Your task to perform on an android device: open app "HBO Max: Stream TV & Movies" Image 0: 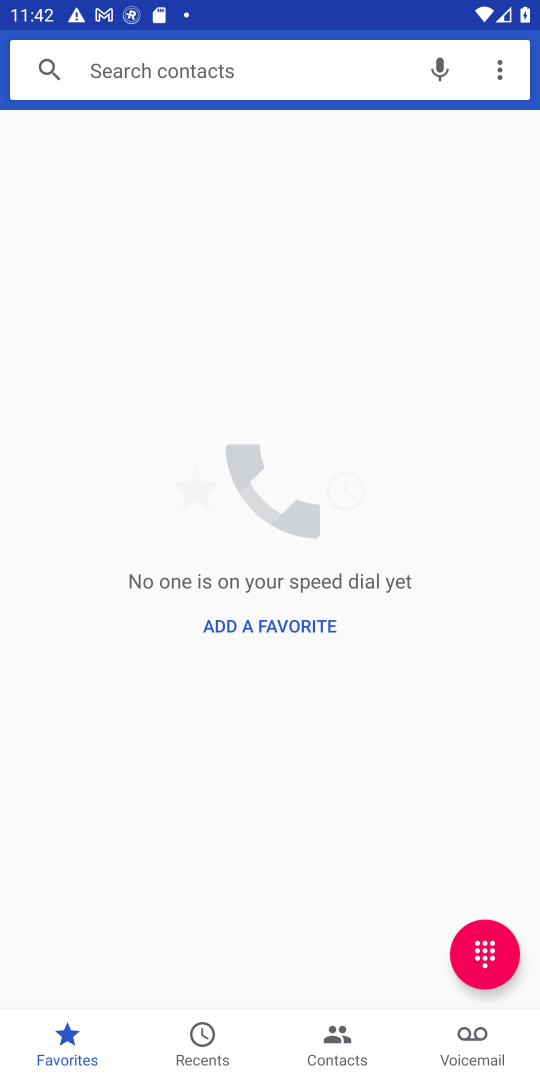
Step 0: press home button
Your task to perform on an android device: open app "HBO Max: Stream TV & Movies" Image 1: 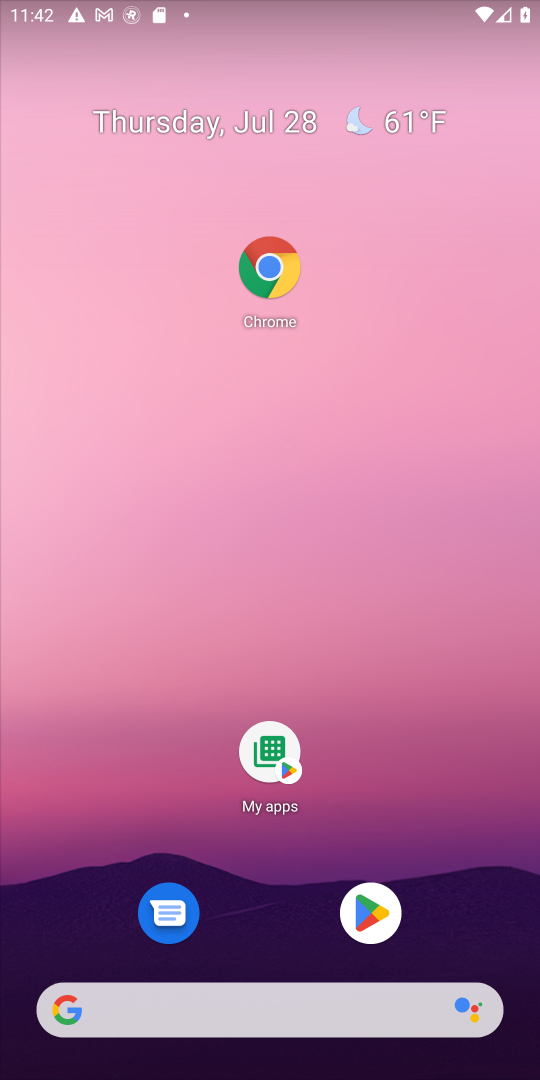
Step 1: click (385, 905)
Your task to perform on an android device: open app "HBO Max: Stream TV & Movies" Image 2: 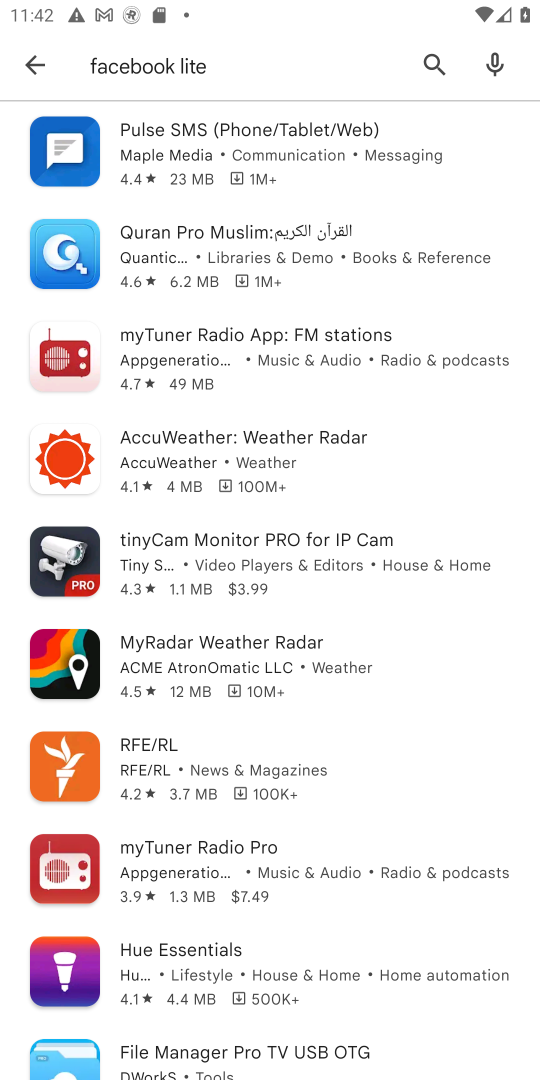
Step 2: click (431, 55)
Your task to perform on an android device: open app "HBO Max: Stream TV & Movies" Image 3: 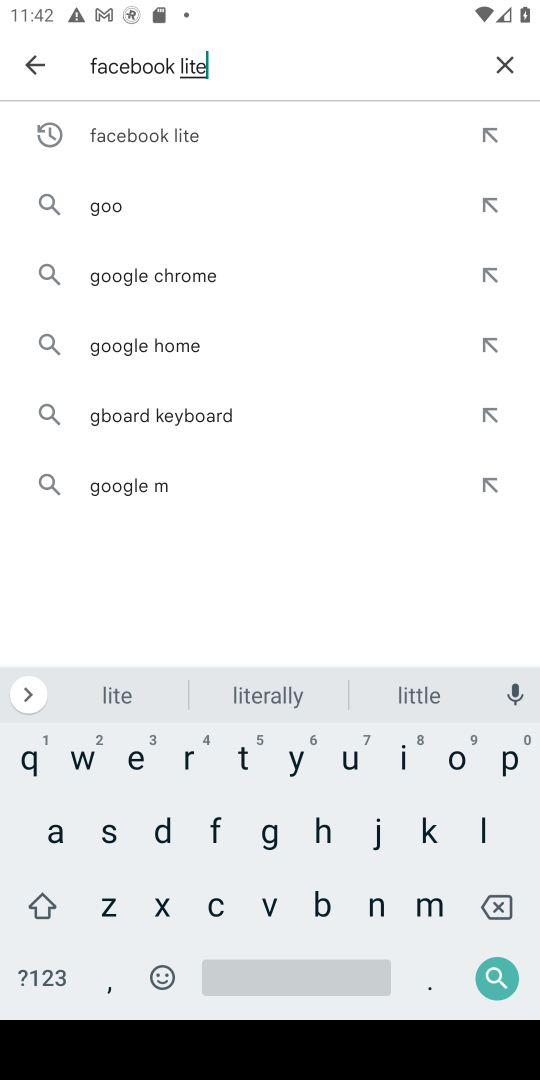
Step 3: click (496, 63)
Your task to perform on an android device: open app "HBO Max: Stream TV & Movies" Image 4: 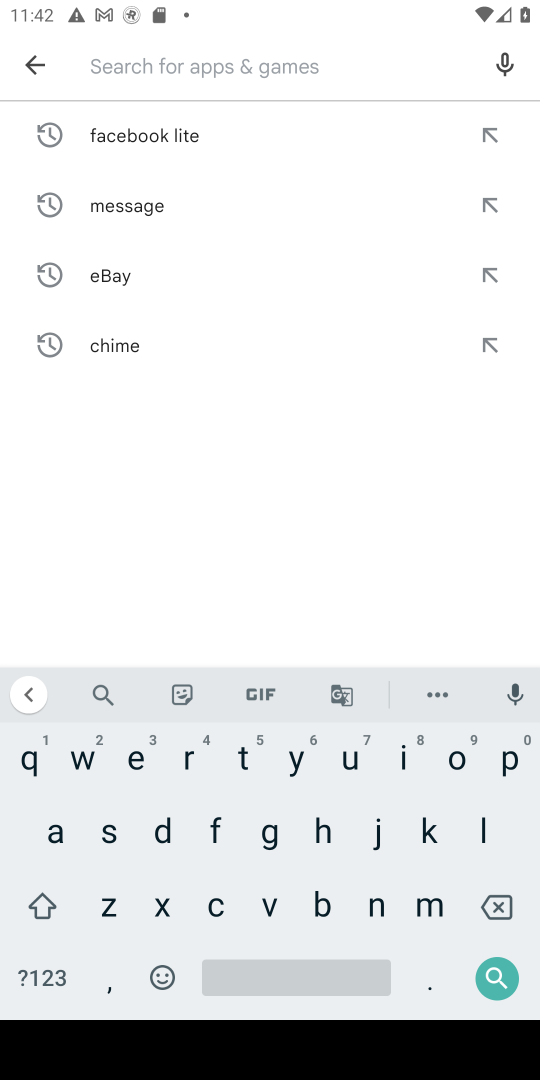
Step 4: click (326, 827)
Your task to perform on an android device: open app "HBO Max: Stream TV & Movies" Image 5: 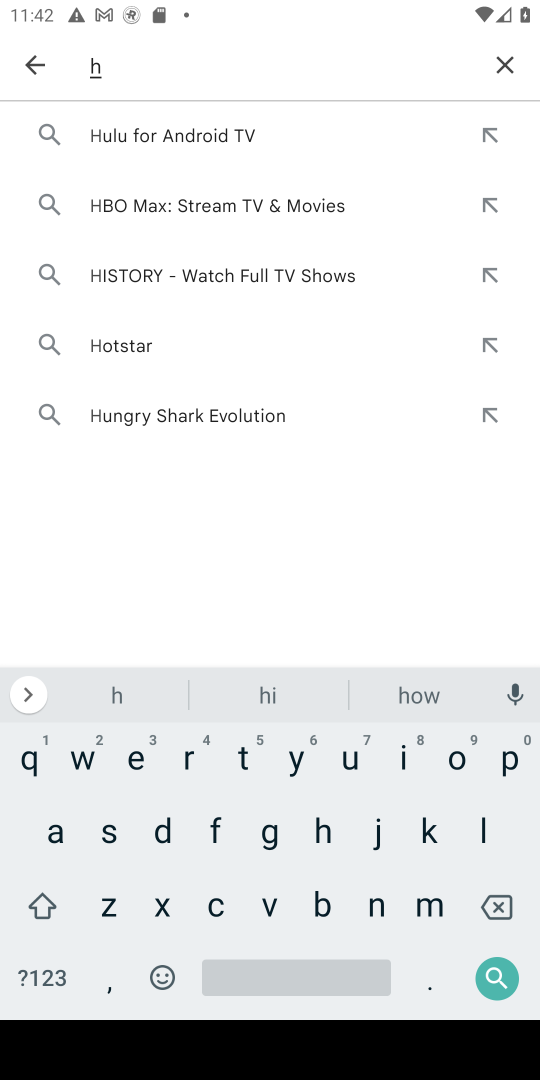
Step 5: click (321, 907)
Your task to perform on an android device: open app "HBO Max: Stream TV & Movies" Image 6: 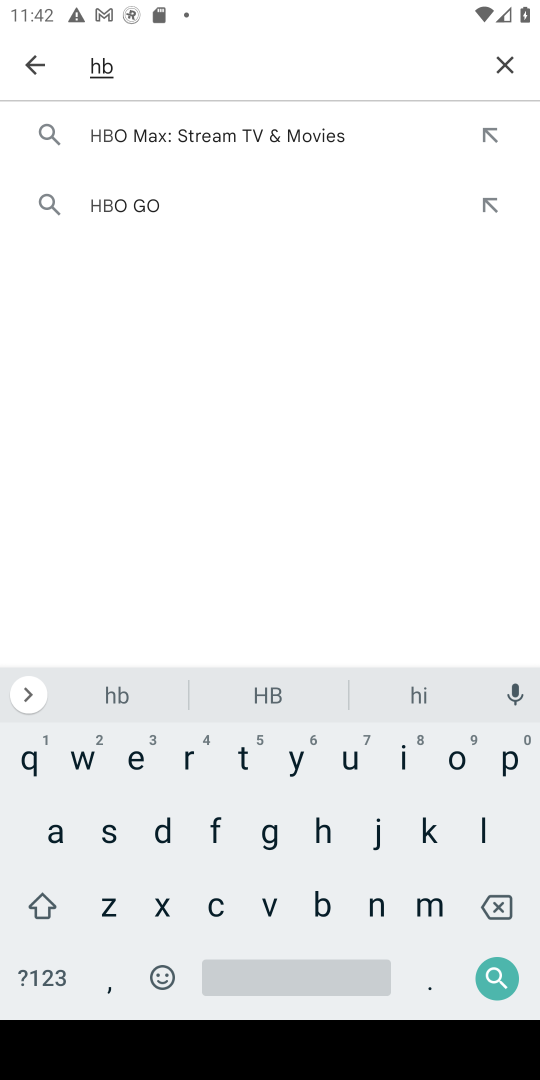
Step 6: click (457, 760)
Your task to perform on an android device: open app "HBO Max: Stream TV & Movies" Image 7: 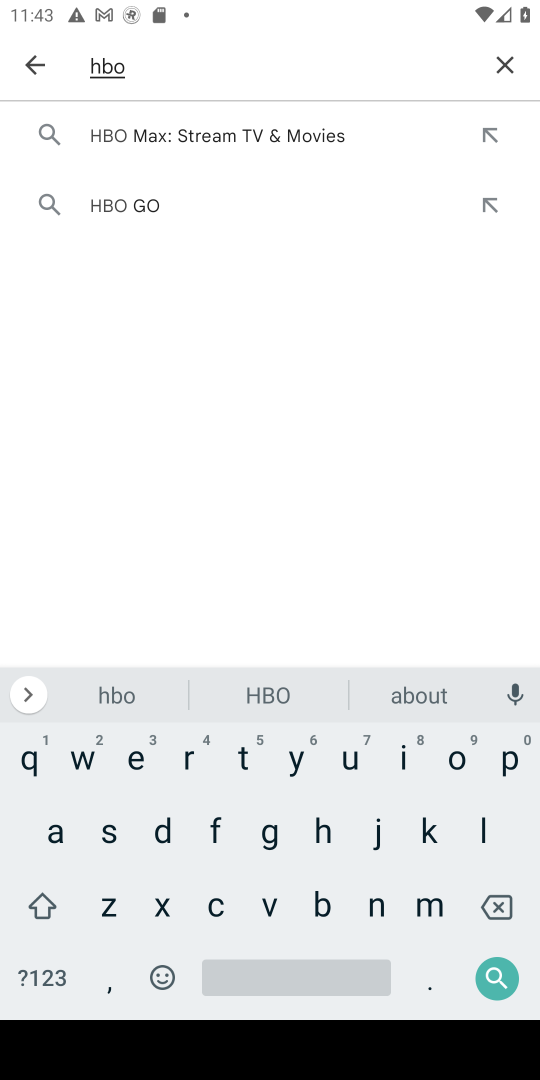
Step 7: click (304, 123)
Your task to perform on an android device: open app "HBO Max: Stream TV & Movies" Image 8: 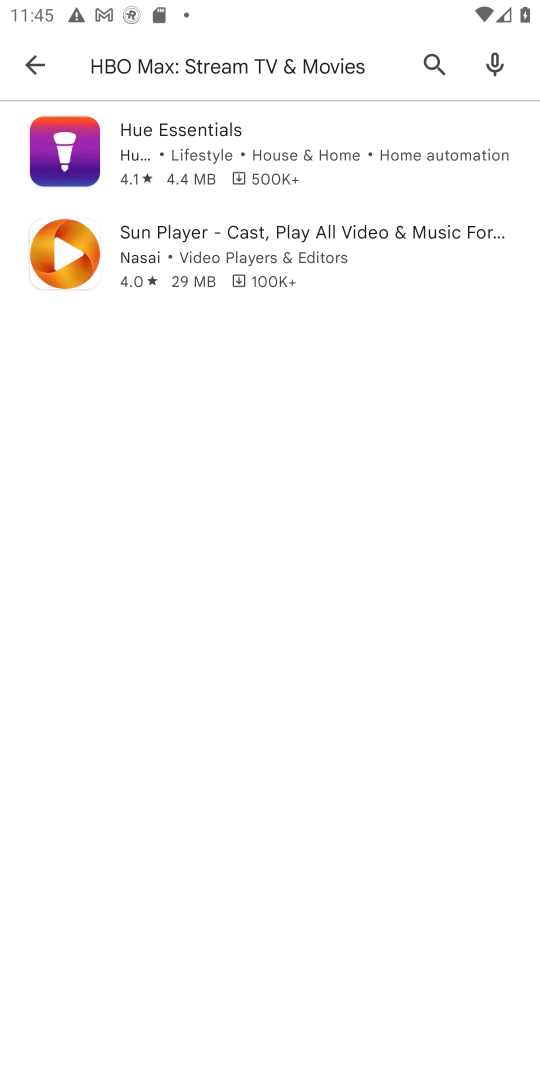
Step 8: task complete